Your task to perform on an android device: install app "DoorDash - Food Delivery" Image 0: 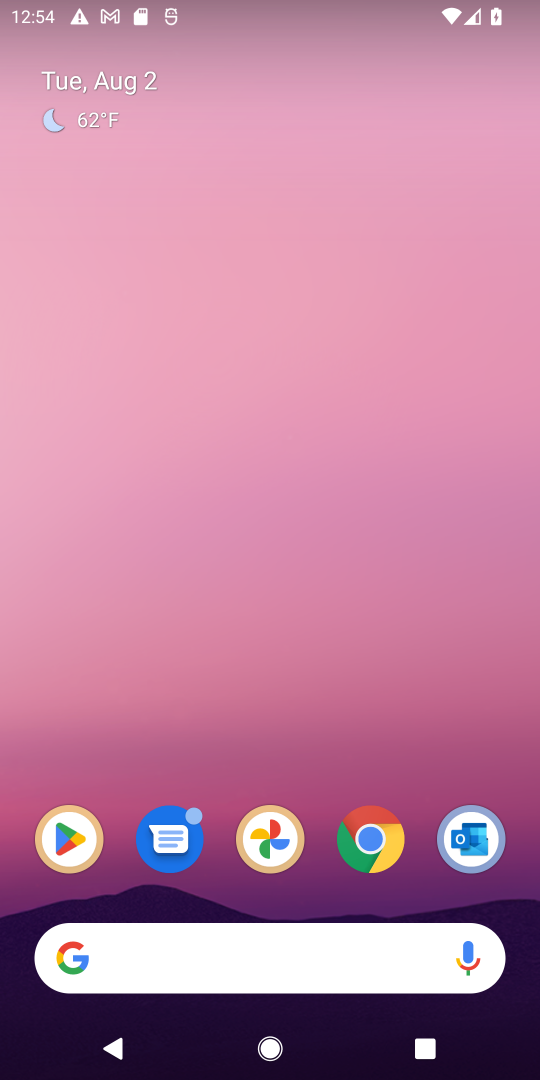
Step 0: click (59, 844)
Your task to perform on an android device: install app "DoorDash - Food Delivery" Image 1: 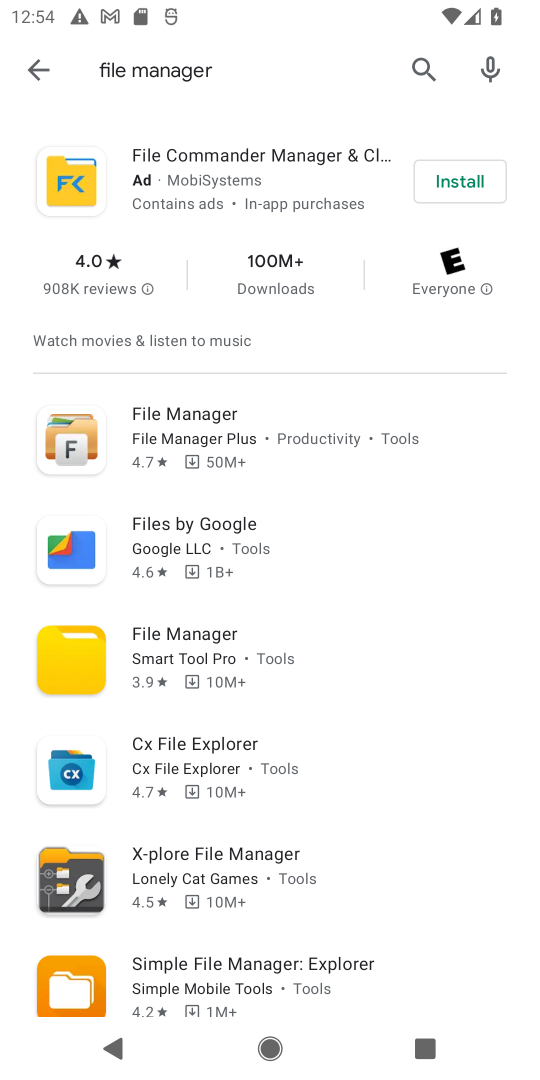
Step 1: click (417, 63)
Your task to perform on an android device: install app "DoorDash - Food Delivery" Image 2: 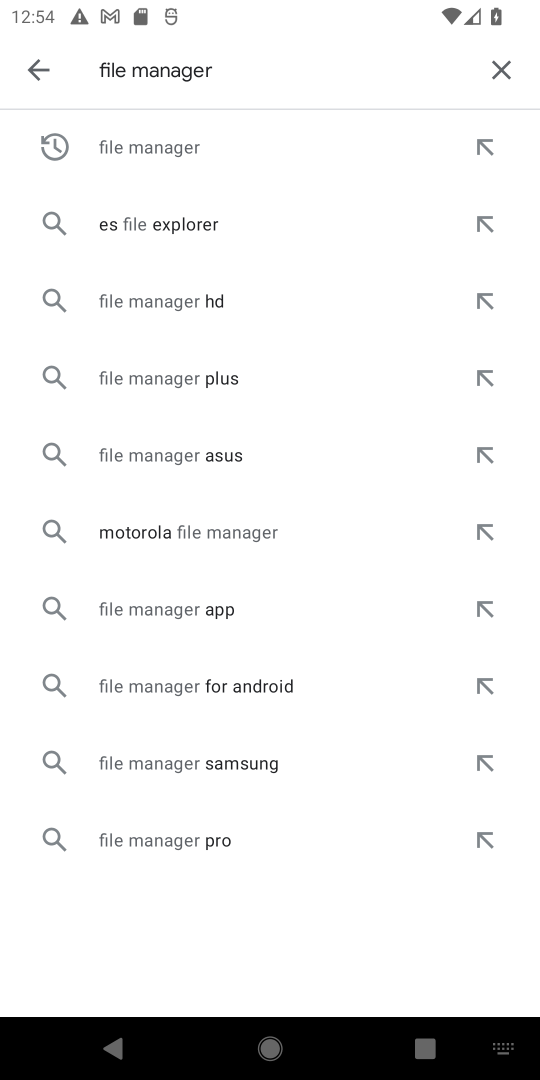
Step 2: click (503, 67)
Your task to perform on an android device: install app "DoorDash - Food Delivery" Image 3: 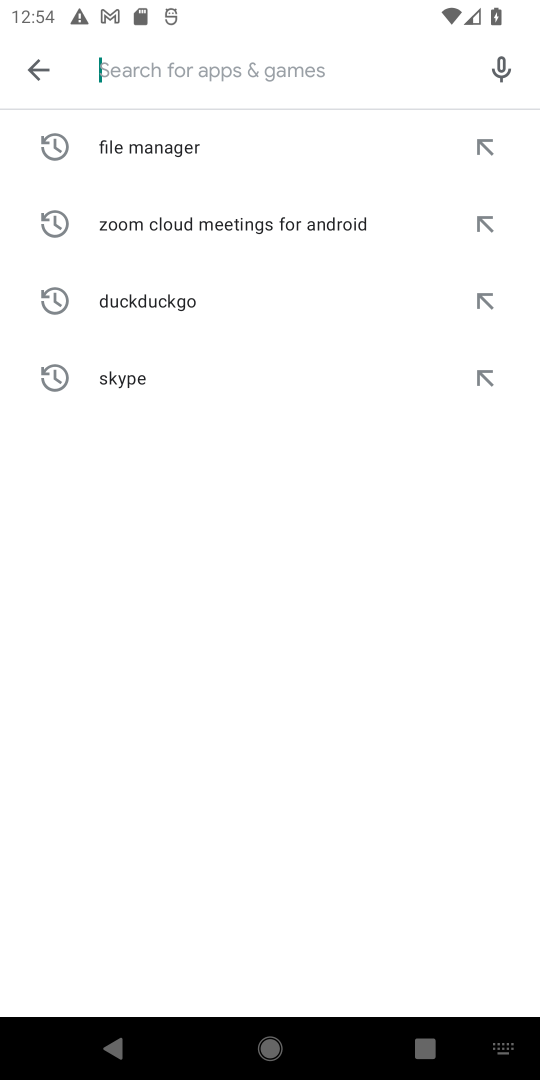
Step 3: type "doordash"
Your task to perform on an android device: install app "DoorDash - Food Delivery" Image 4: 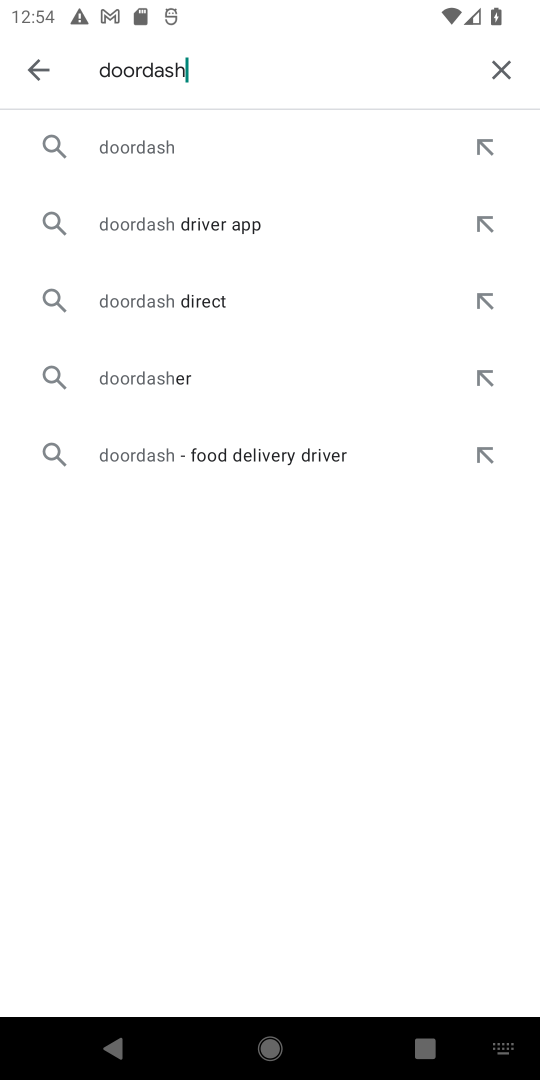
Step 4: click (175, 144)
Your task to perform on an android device: install app "DoorDash - Food Delivery" Image 5: 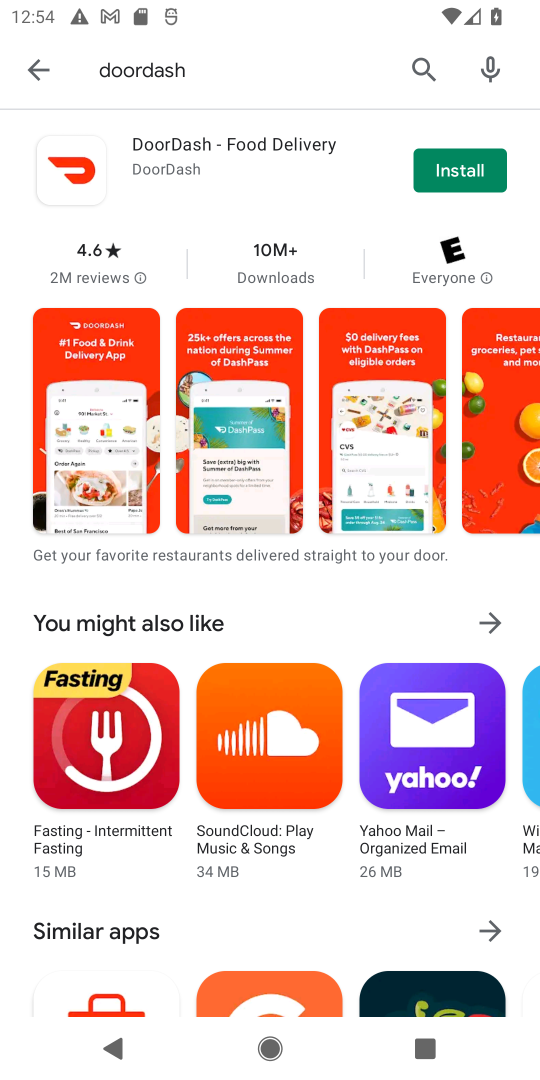
Step 5: click (445, 166)
Your task to perform on an android device: install app "DoorDash - Food Delivery" Image 6: 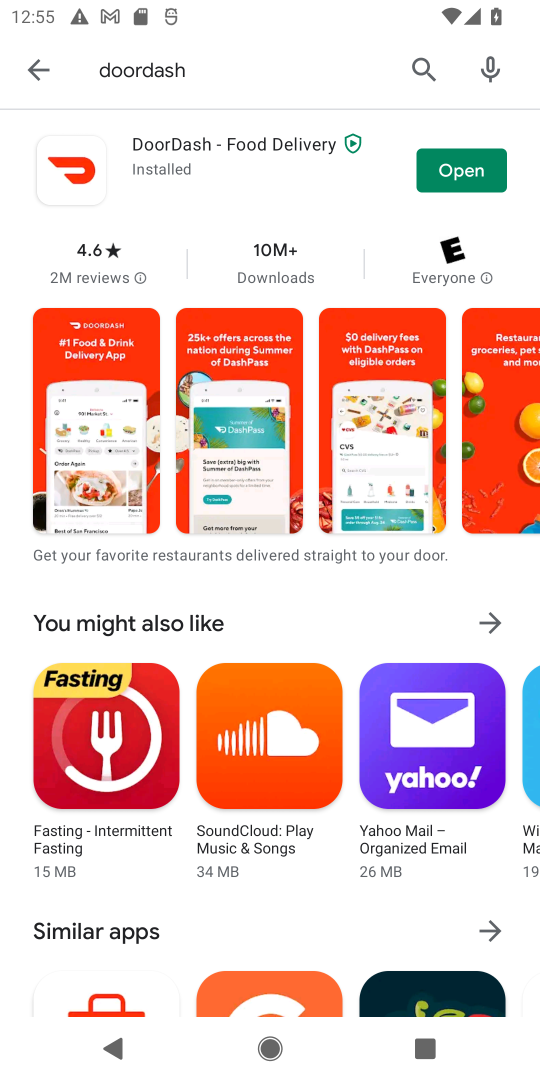
Step 6: task complete